Your task to perform on an android device: Open Chrome and go to settings Image 0: 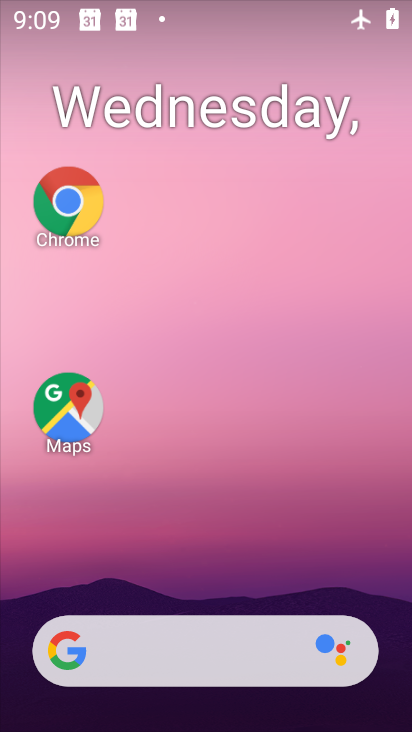
Step 0: click (75, 210)
Your task to perform on an android device: Open Chrome and go to settings Image 1: 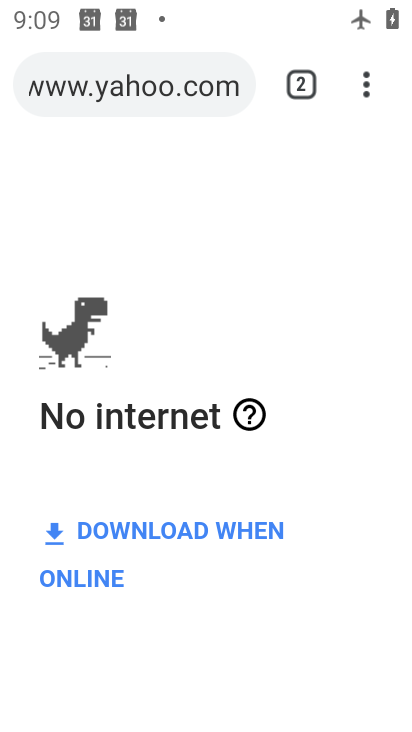
Step 1: click (367, 84)
Your task to perform on an android device: Open Chrome and go to settings Image 2: 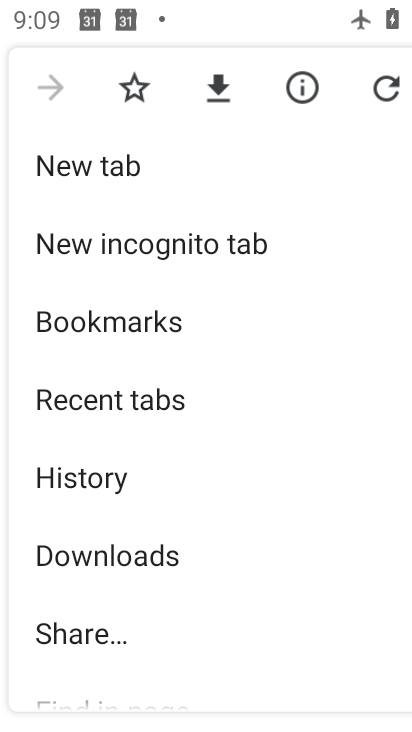
Step 2: drag from (80, 649) to (13, 81)
Your task to perform on an android device: Open Chrome and go to settings Image 3: 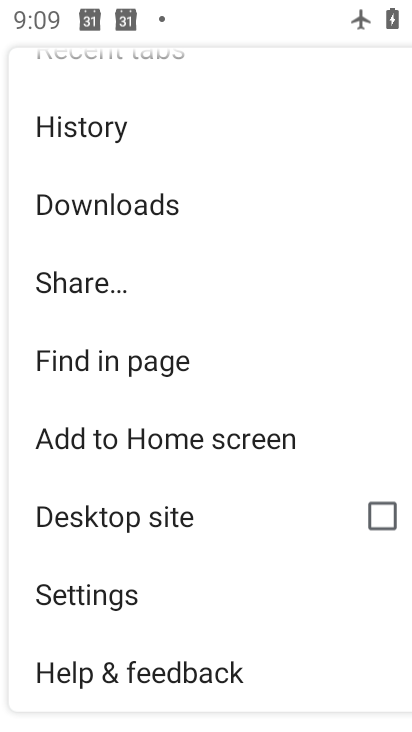
Step 3: click (50, 617)
Your task to perform on an android device: Open Chrome and go to settings Image 4: 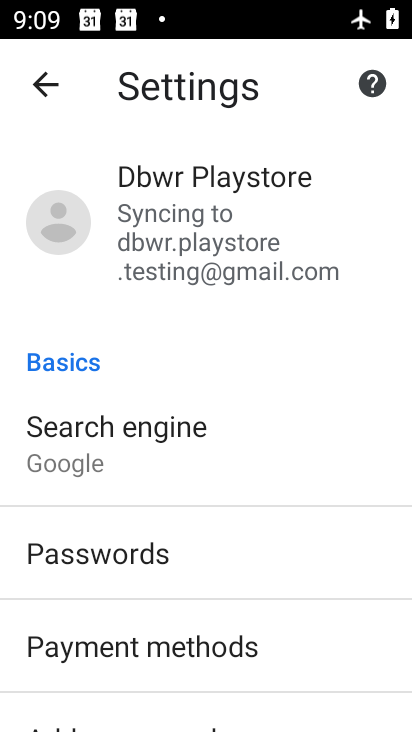
Step 4: task complete